Your task to perform on an android device: Open wifi settings Image 0: 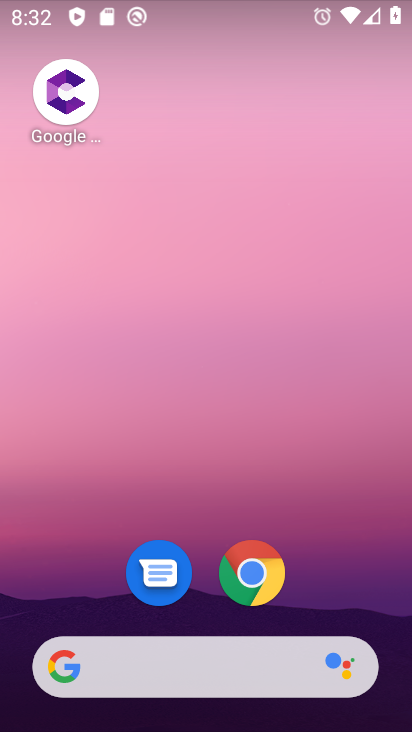
Step 0: drag from (328, 593) to (207, 9)
Your task to perform on an android device: Open wifi settings Image 1: 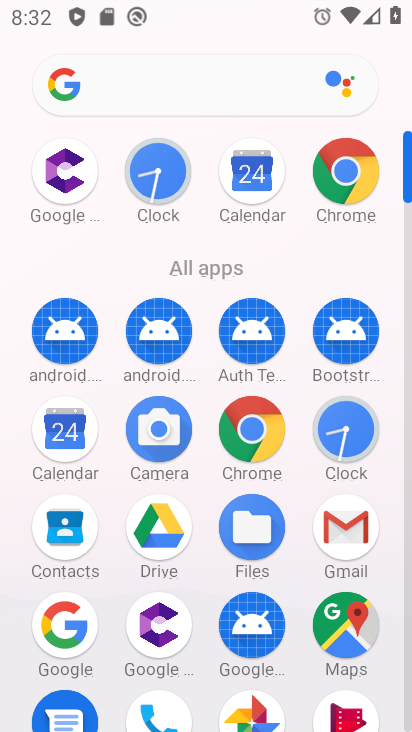
Step 1: drag from (210, 595) to (185, 144)
Your task to perform on an android device: Open wifi settings Image 2: 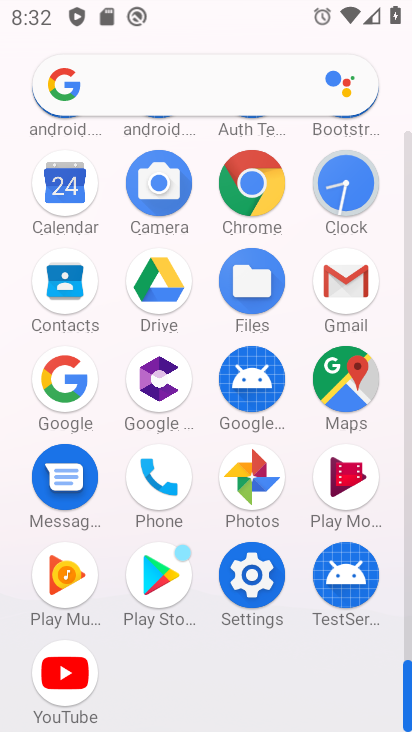
Step 2: click (252, 577)
Your task to perform on an android device: Open wifi settings Image 3: 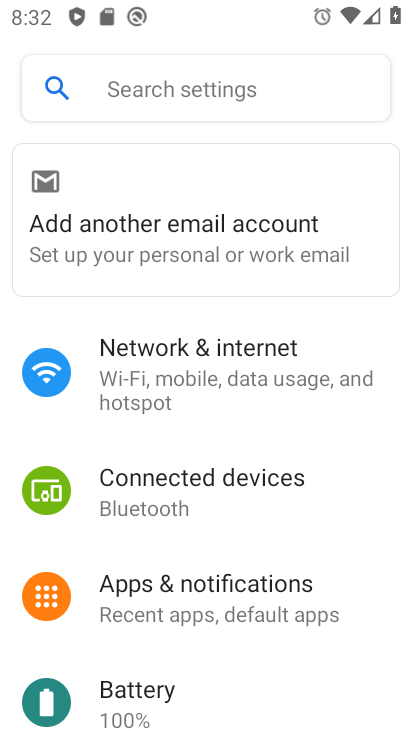
Step 3: click (154, 356)
Your task to perform on an android device: Open wifi settings Image 4: 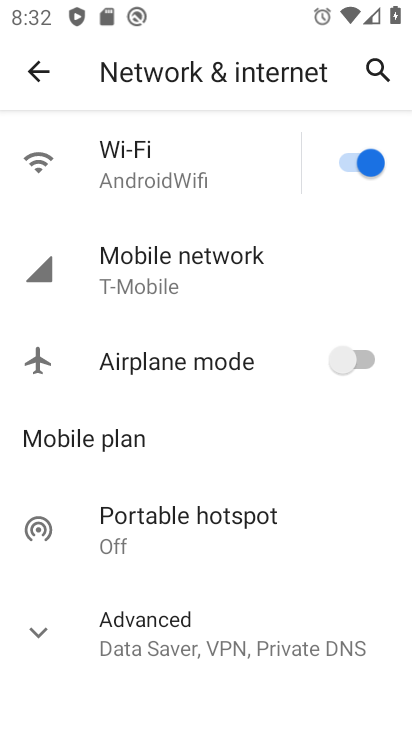
Step 4: click (126, 145)
Your task to perform on an android device: Open wifi settings Image 5: 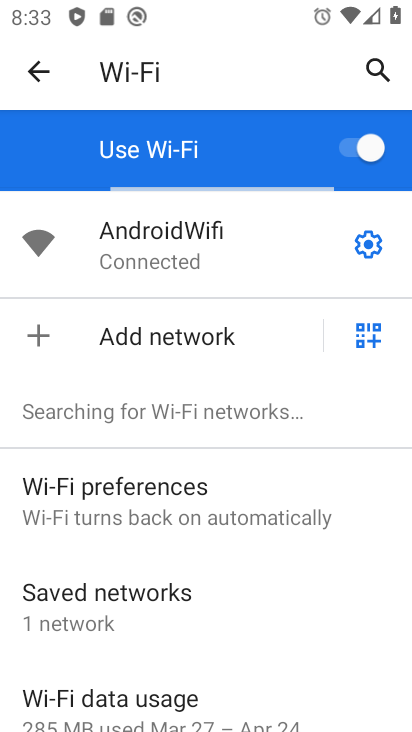
Step 5: task complete